Your task to perform on an android device: delete a single message in the gmail app Image 0: 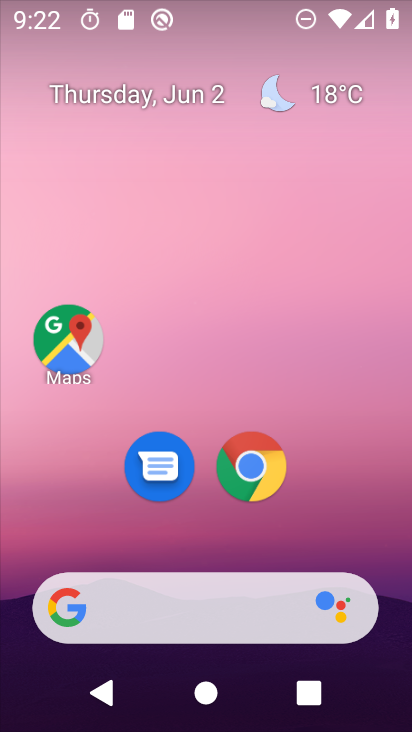
Step 0: press home button
Your task to perform on an android device: delete a single message in the gmail app Image 1: 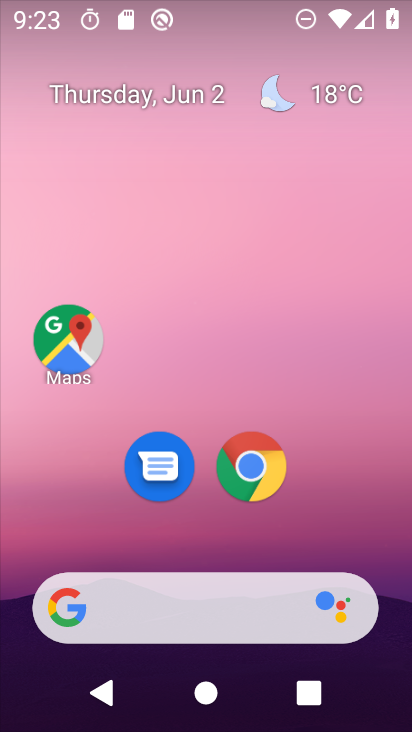
Step 1: drag from (223, 542) to (228, 0)
Your task to perform on an android device: delete a single message in the gmail app Image 2: 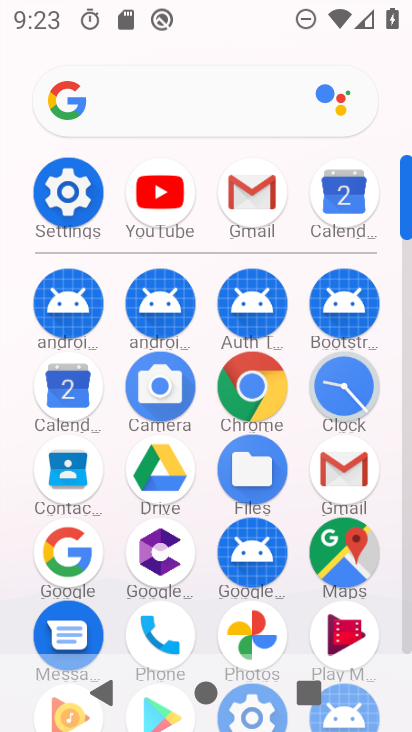
Step 2: click (253, 189)
Your task to perform on an android device: delete a single message in the gmail app Image 3: 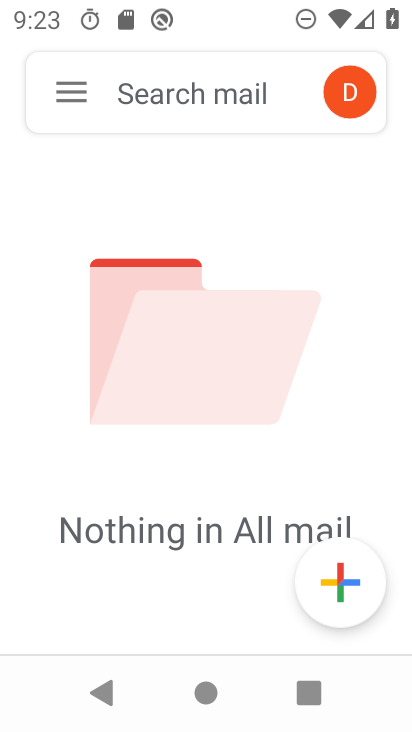
Step 3: click (71, 104)
Your task to perform on an android device: delete a single message in the gmail app Image 4: 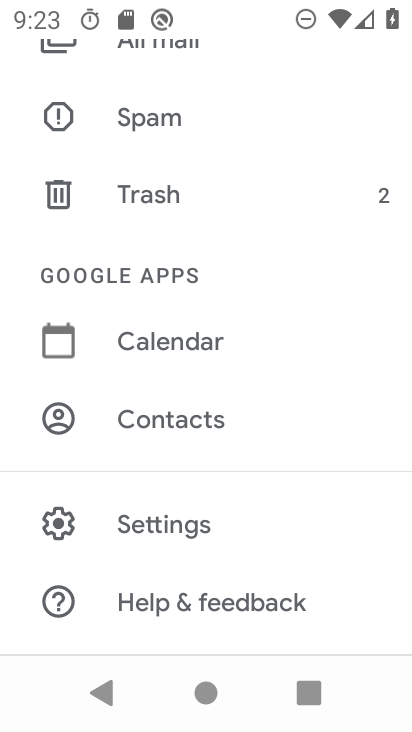
Step 4: drag from (310, 205) to (317, 510)
Your task to perform on an android device: delete a single message in the gmail app Image 5: 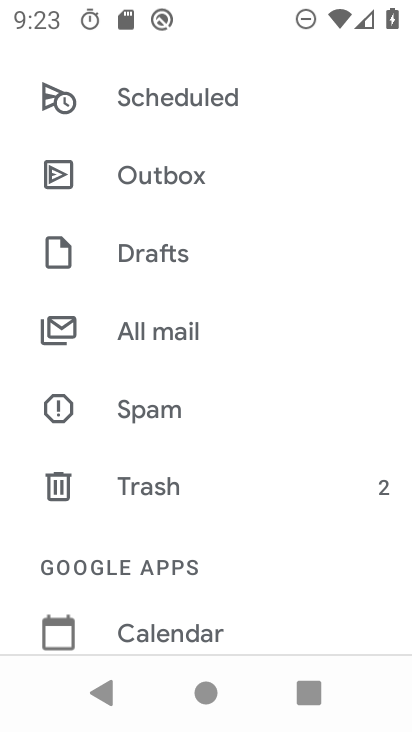
Step 5: click (160, 324)
Your task to perform on an android device: delete a single message in the gmail app Image 6: 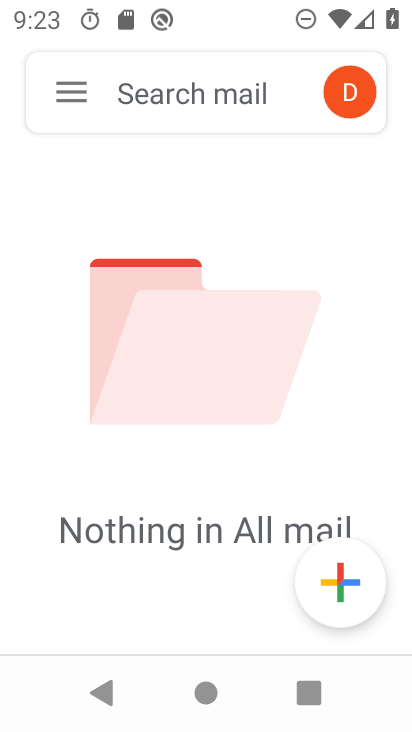
Step 6: task complete